Your task to perform on an android device: open app "LiveIn - Share Your Moment" (install if not already installed) Image 0: 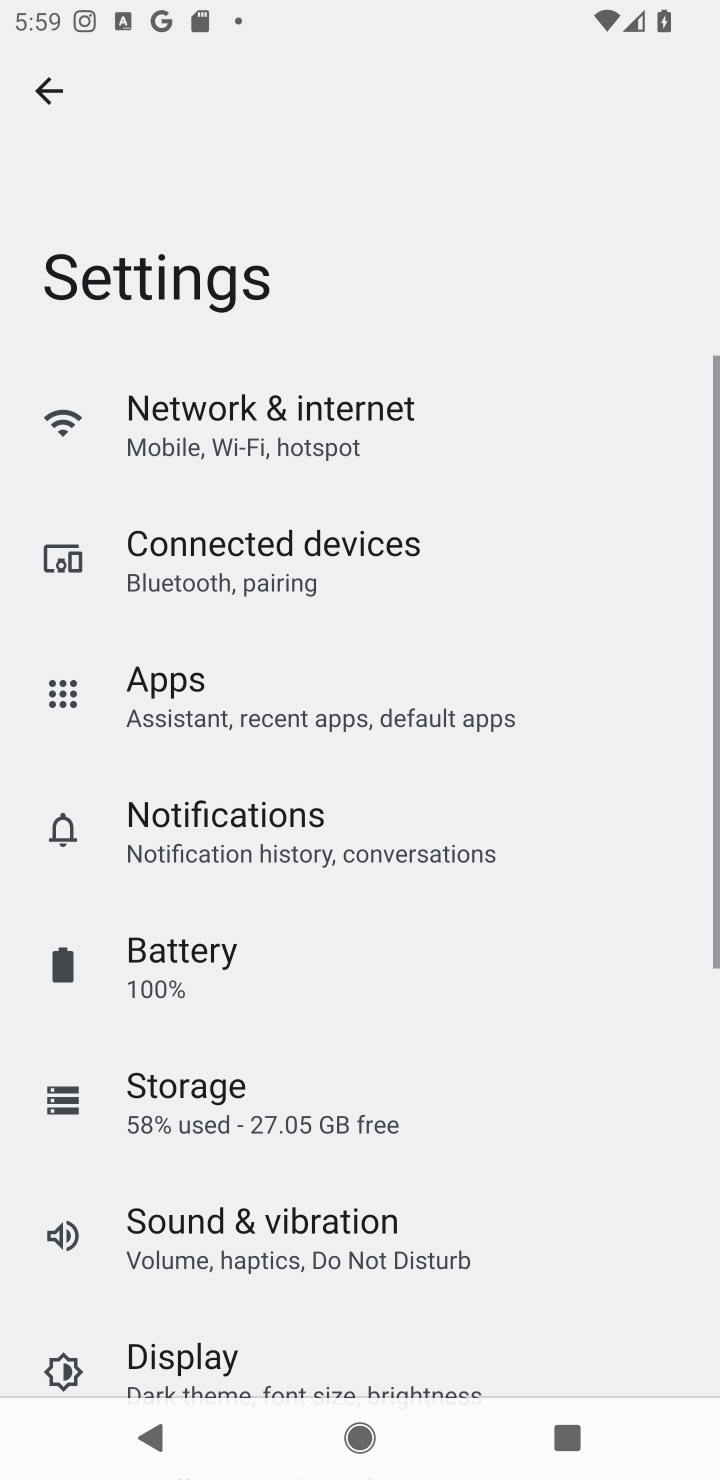
Step 0: press home button
Your task to perform on an android device: open app "LiveIn - Share Your Moment" (install if not already installed) Image 1: 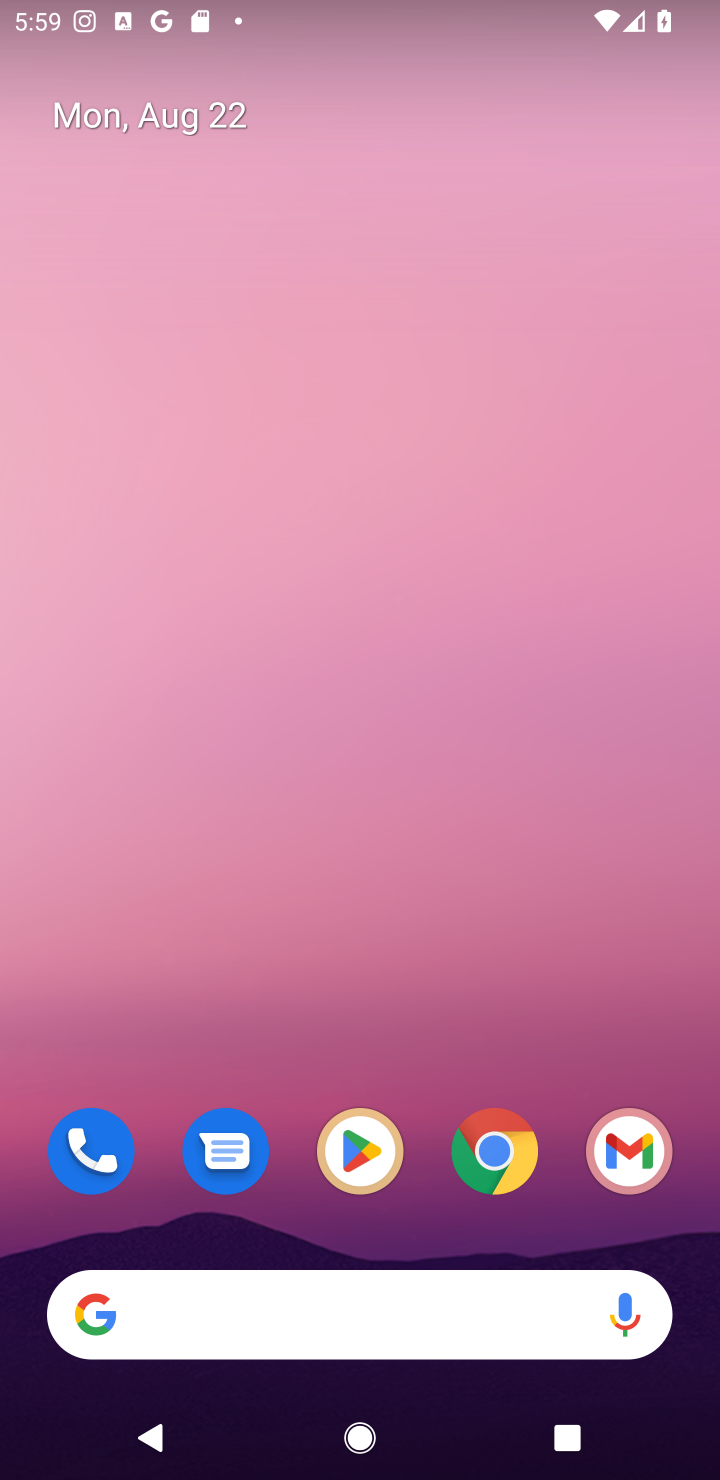
Step 1: click (346, 1143)
Your task to perform on an android device: open app "LiveIn - Share Your Moment" (install if not already installed) Image 2: 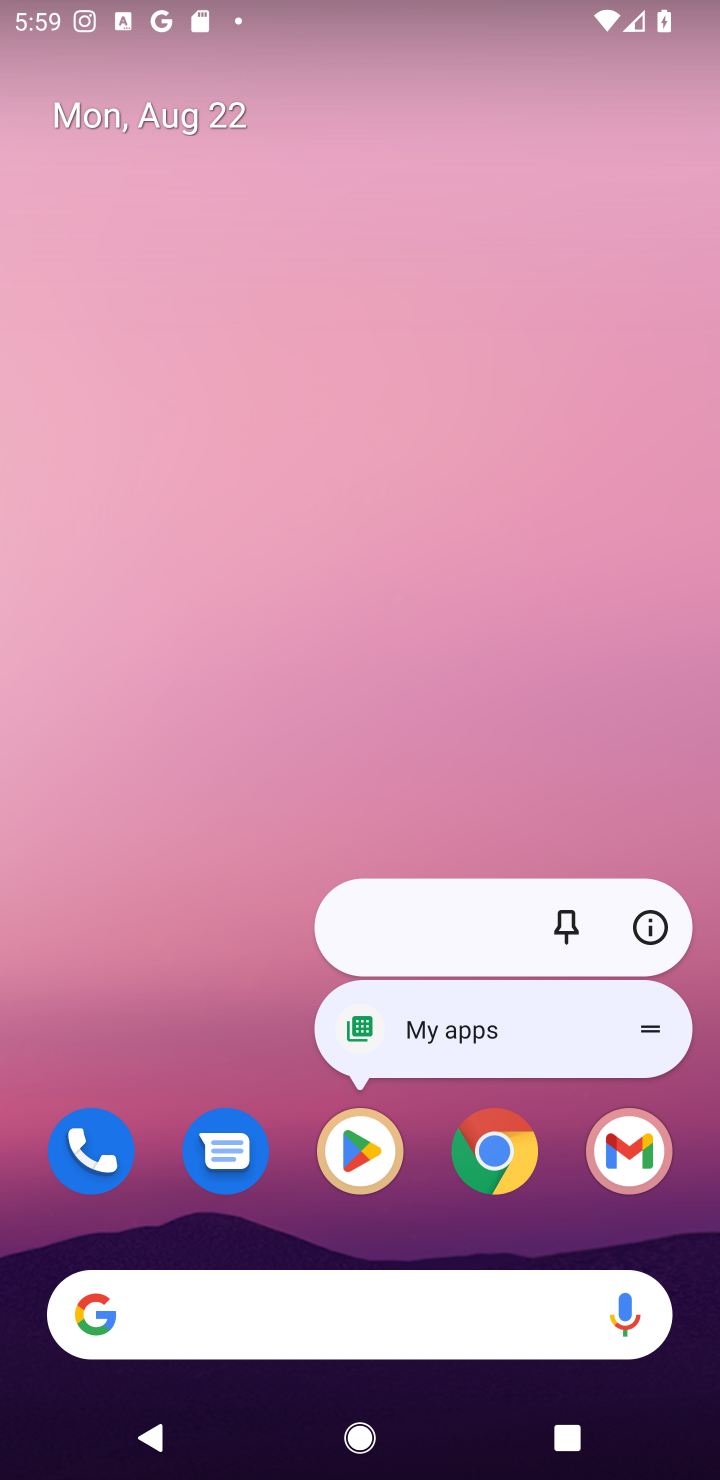
Step 2: click (348, 1153)
Your task to perform on an android device: open app "LiveIn - Share Your Moment" (install if not already installed) Image 3: 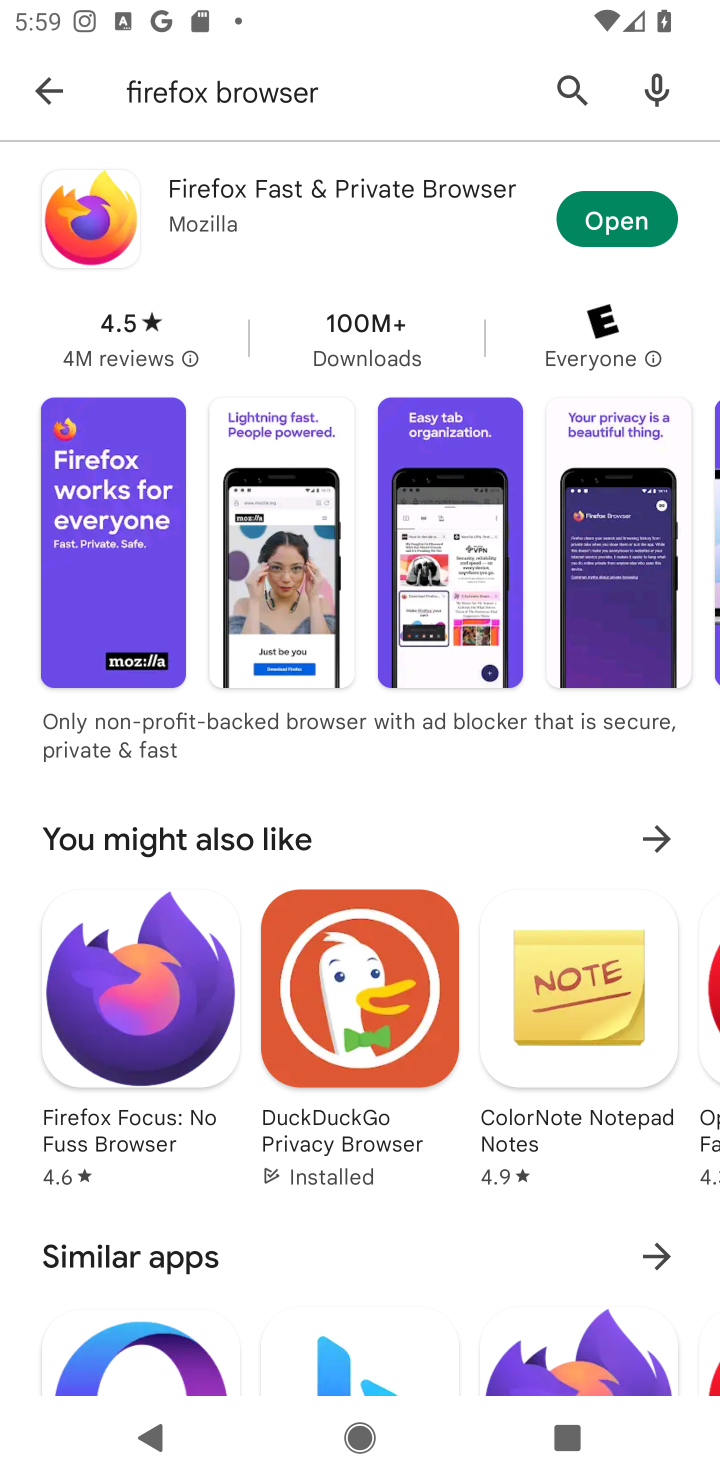
Step 3: click (578, 74)
Your task to perform on an android device: open app "LiveIn - Share Your Moment" (install if not already installed) Image 4: 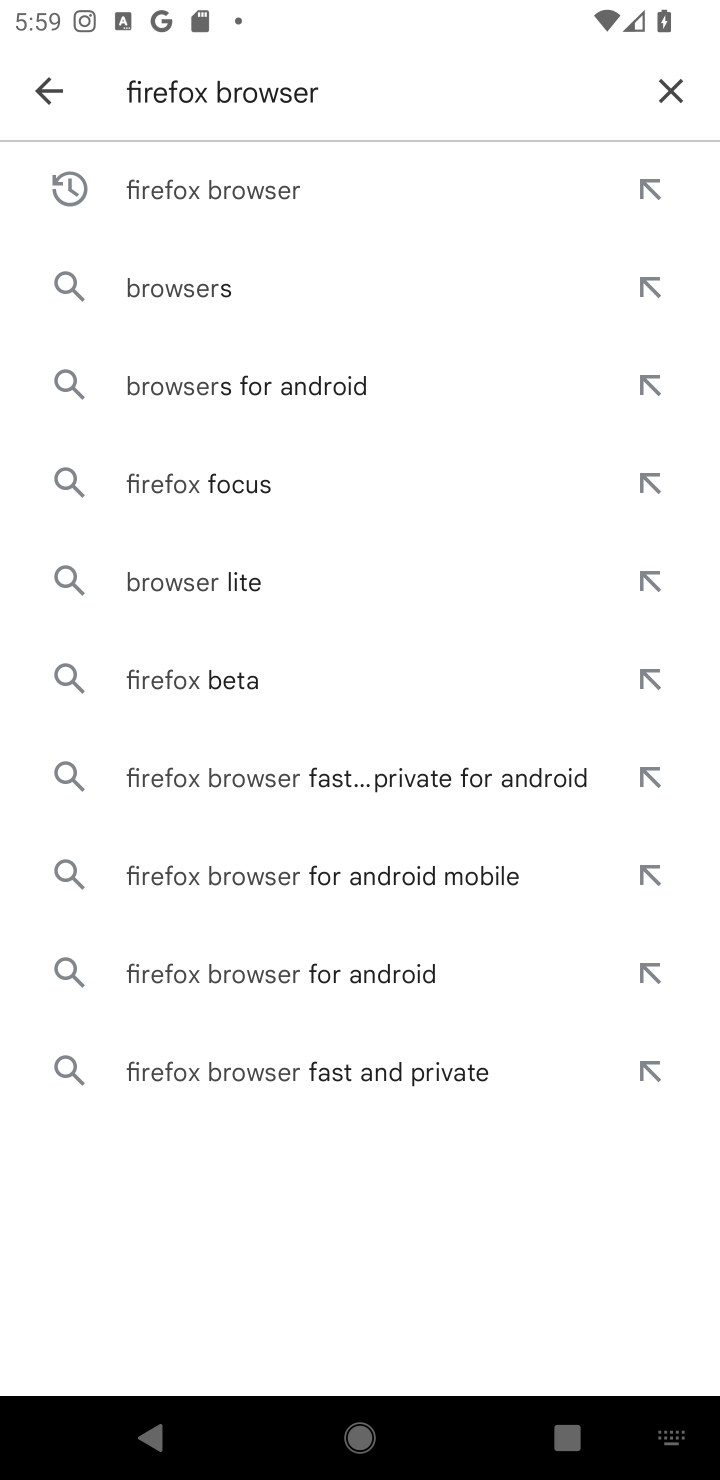
Step 4: click (654, 76)
Your task to perform on an android device: open app "LiveIn - Share Your Moment" (install if not already installed) Image 5: 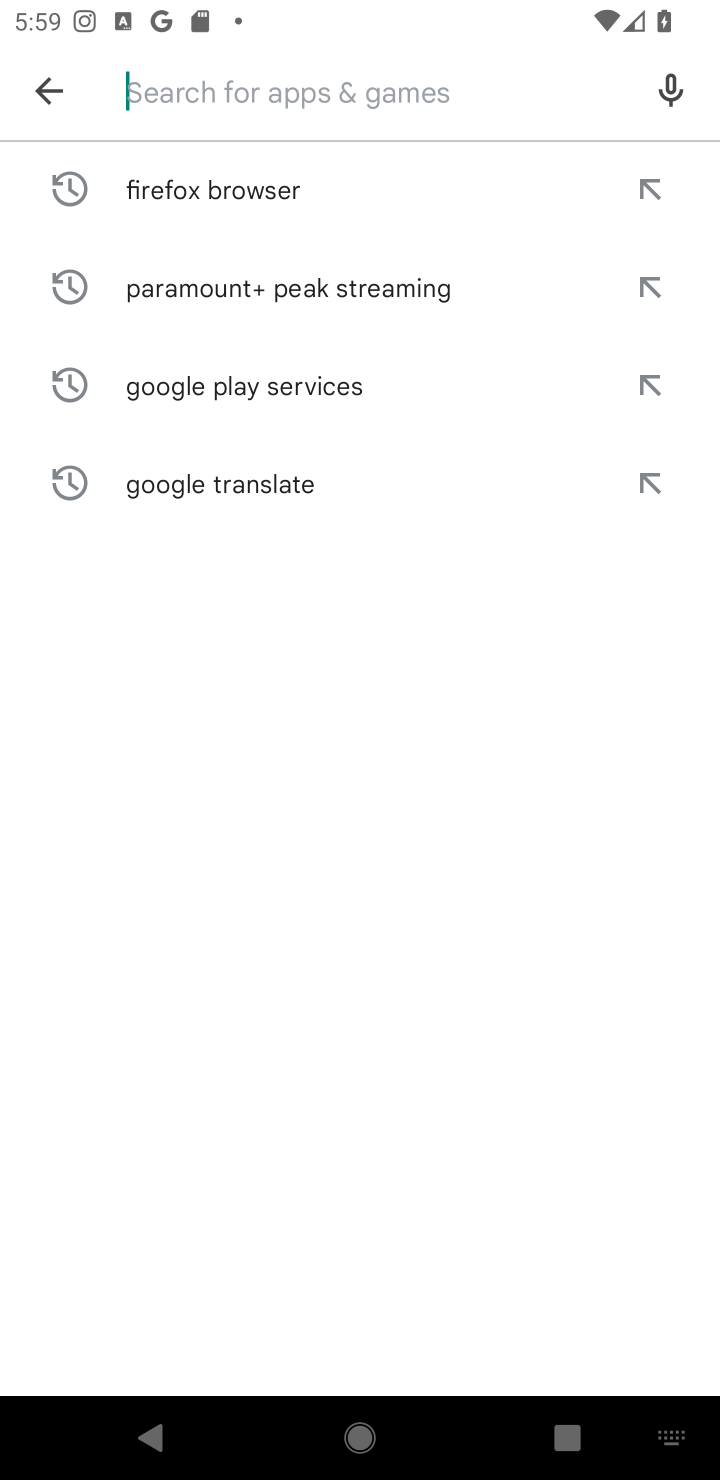
Step 5: type "LiveIn - Share Your Moment"
Your task to perform on an android device: open app "LiveIn - Share Your Moment" (install if not already installed) Image 6: 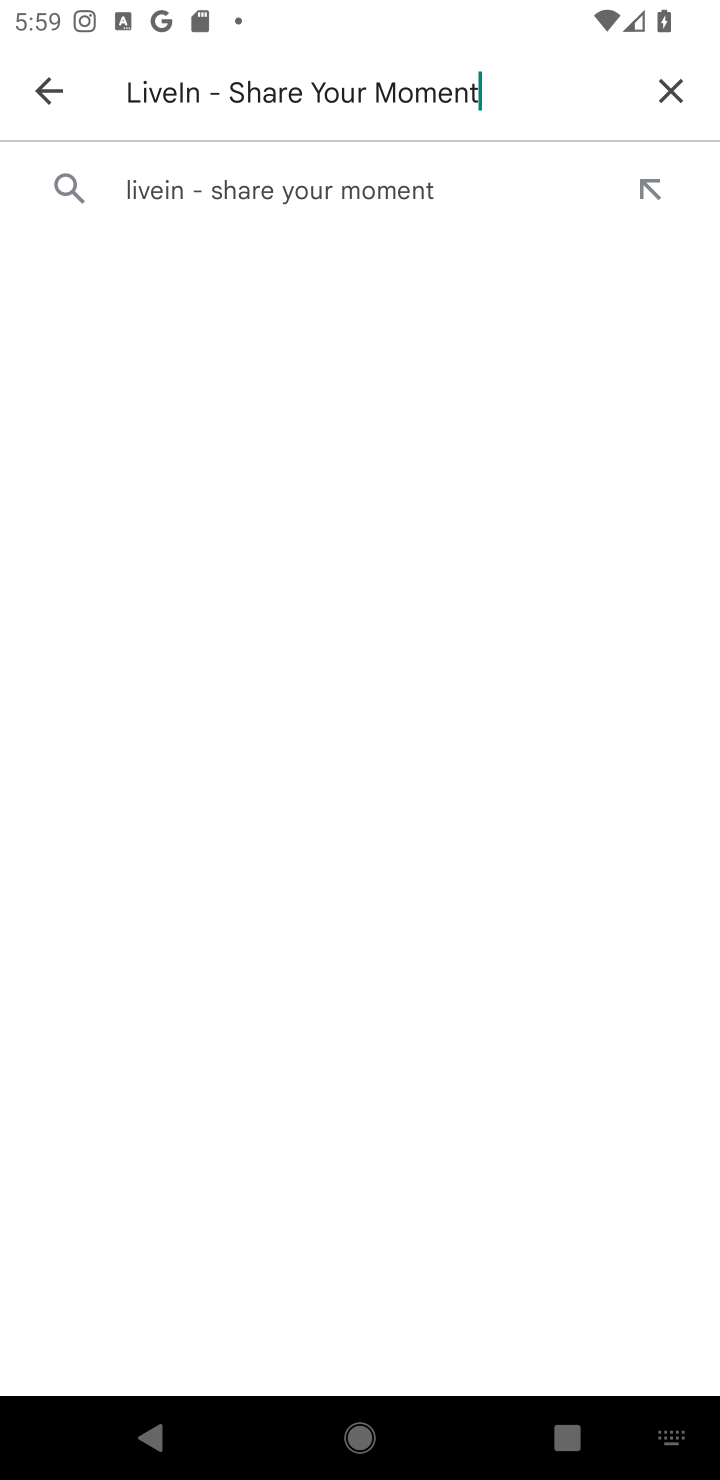
Step 6: click (332, 178)
Your task to perform on an android device: open app "LiveIn - Share Your Moment" (install if not already installed) Image 7: 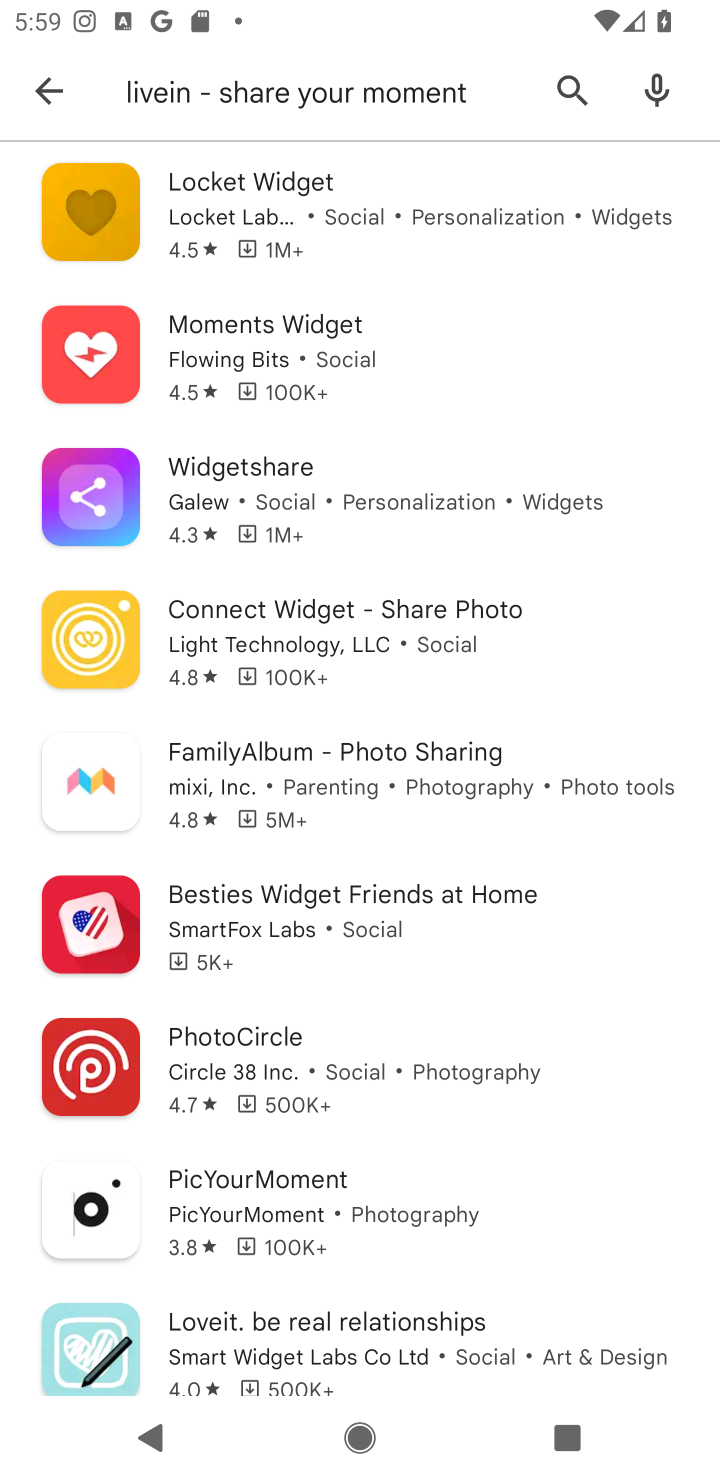
Step 7: task complete